Your task to perform on an android device: Check the weather Image 0: 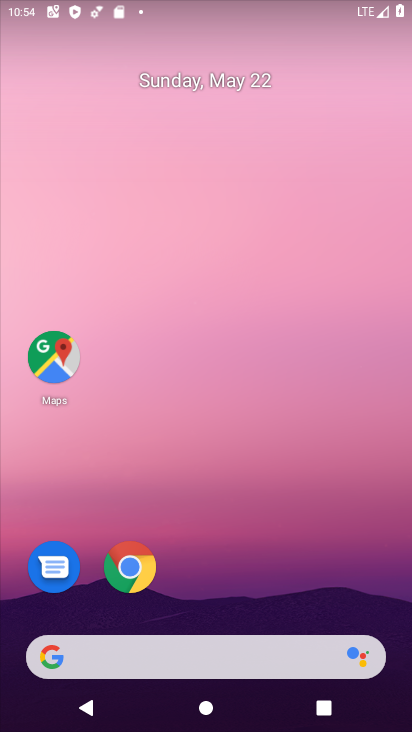
Step 0: drag from (8, 186) to (409, 204)
Your task to perform on an android device: Check the weather Image 1: 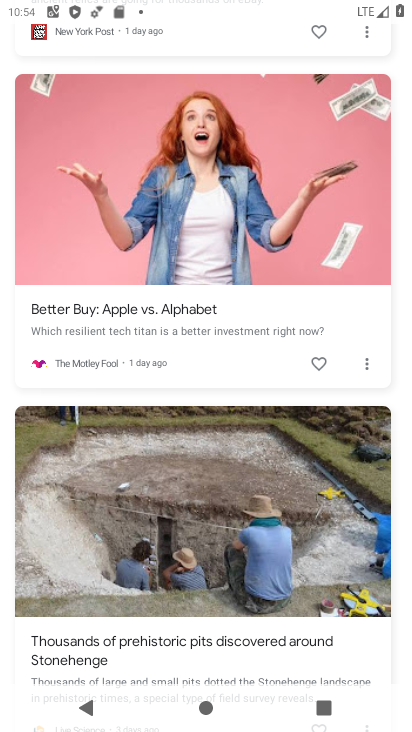
Step 1: drag from (366, 167) to (336, 606)
Your task to perform on an android device: Check the weather Image 2: 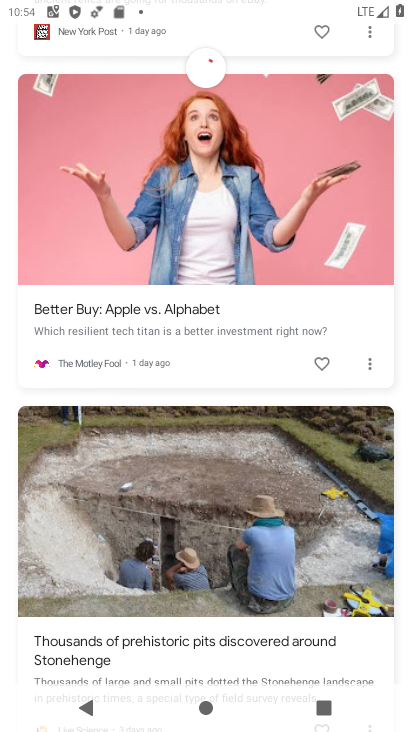
Step 2: drag from (263, 121) to (263, 559)
Your task to perform on an android device: Check the weather Image 3: 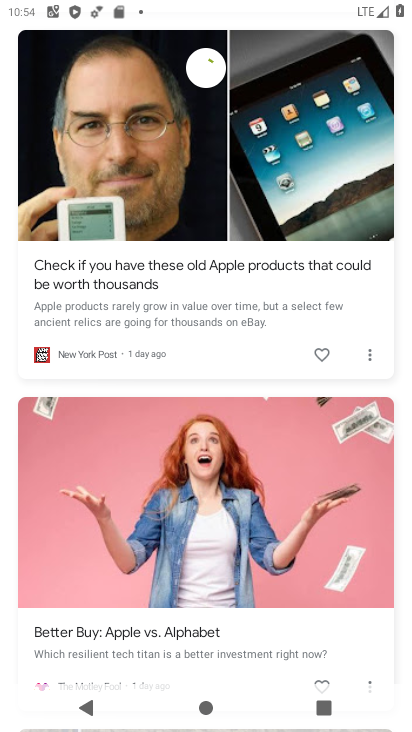
Step 3: drag from (273, 193) to (254, 553)
Your task to perform on an android device: Check the weather Image 4: 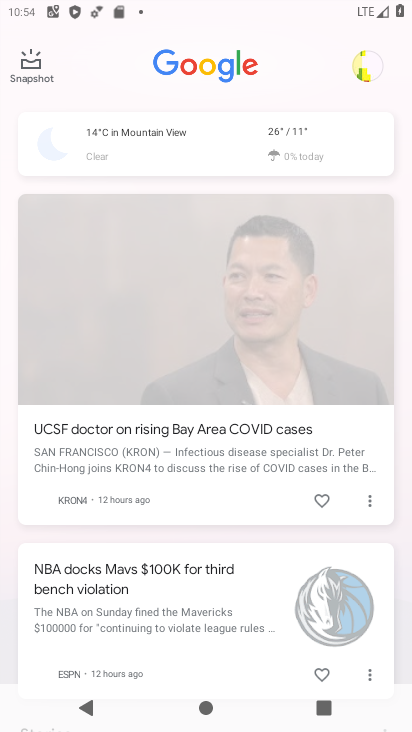
Step 4: drag from (279, 89) to (270, 572)
Your task to perform on an android device: Check the weather Image 5: 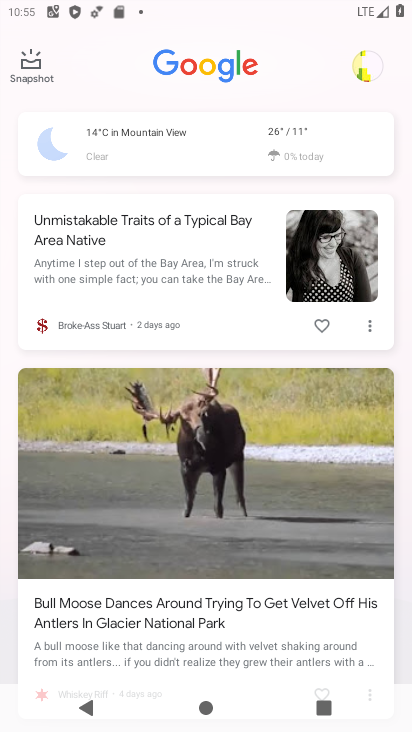
Step 5: click (300, 133)
Your task to perform on an android device: Check the weather Image 6: 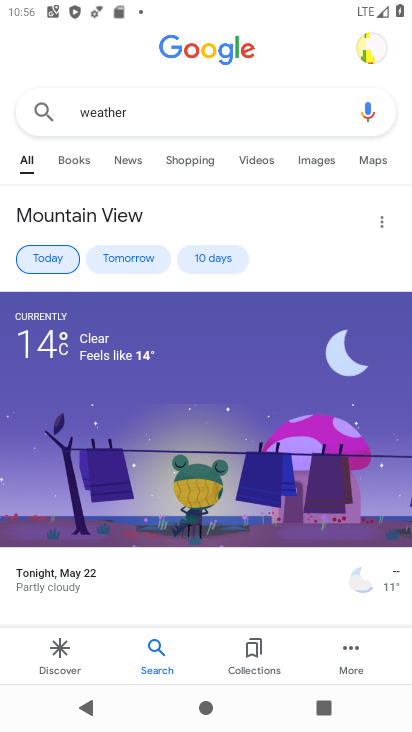
Step 6: task complete